Your task to perform on an android device: turn pop-ups off in chrome Image 0: 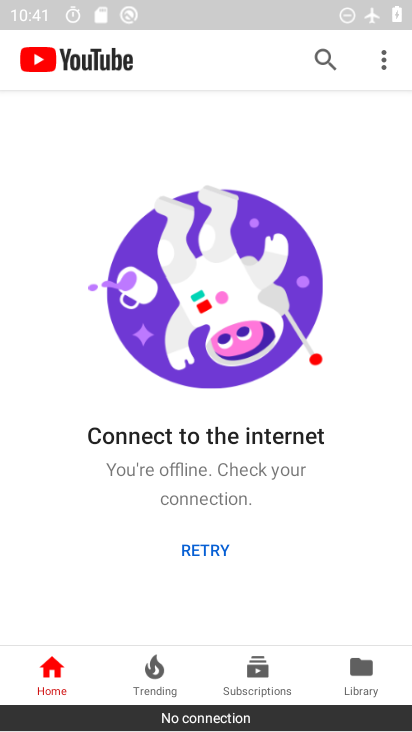
Step 0: press home button
Your task to perform on an android device: turn pop-ups off in chrome Image 1: 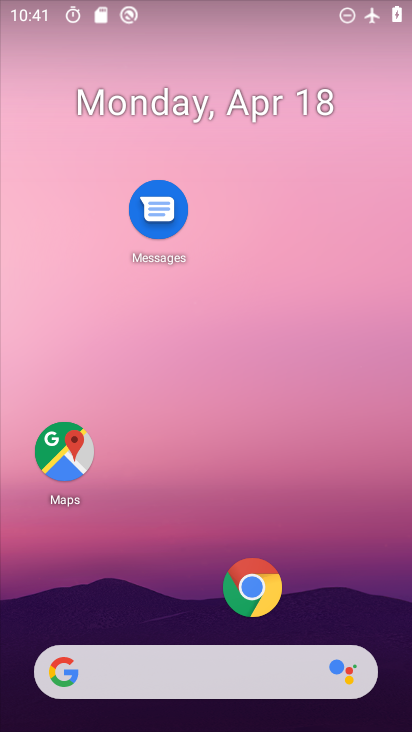
Step 1: click (261, 595)
Your task to perform on an android device: turn pop-ups off in chrome Image 2: 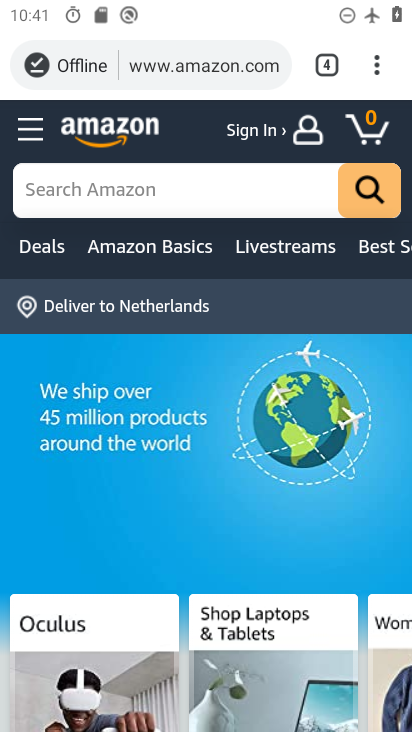
Step 2: click (374, 69)
Your task to perform on an android device: turn pop-ups off in chrome Image 3: 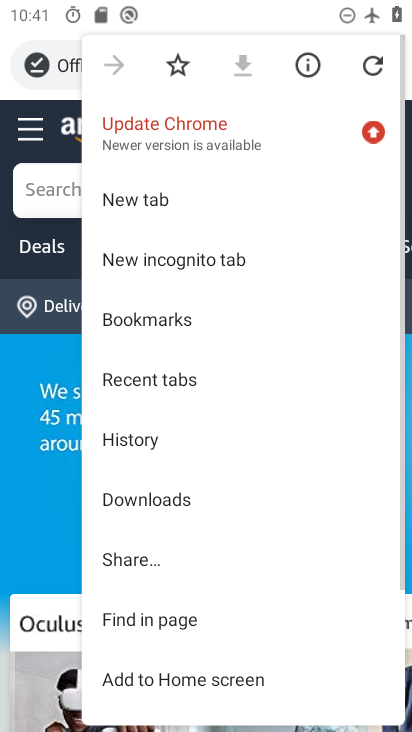
Step 3: drag from (186, 644) to (221, 302)
Your task to perform on an android device: turn pop-ups off in chrome Image 4: 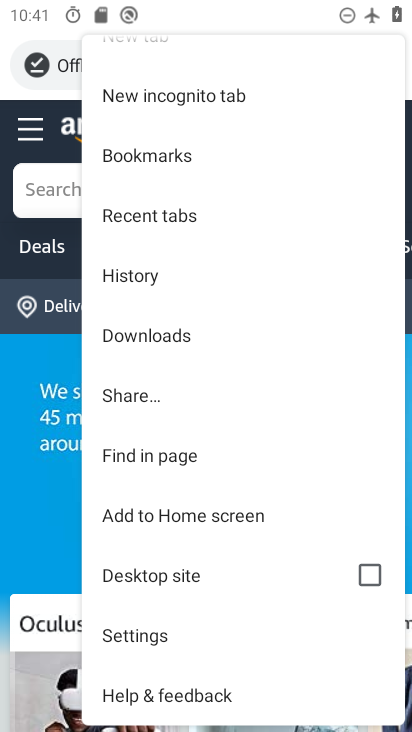
Step 4: click (137, 646)
Your task to perform on an android device: turn pop-ups off in chrome Image 5: 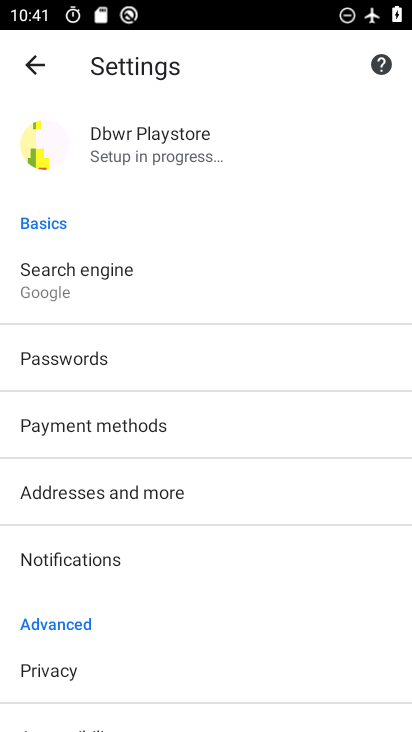
Step 5: drag from (105, 577) to (198, 186)
Your task to perform on an android device: turn pop-ups off in chrome Image 6: 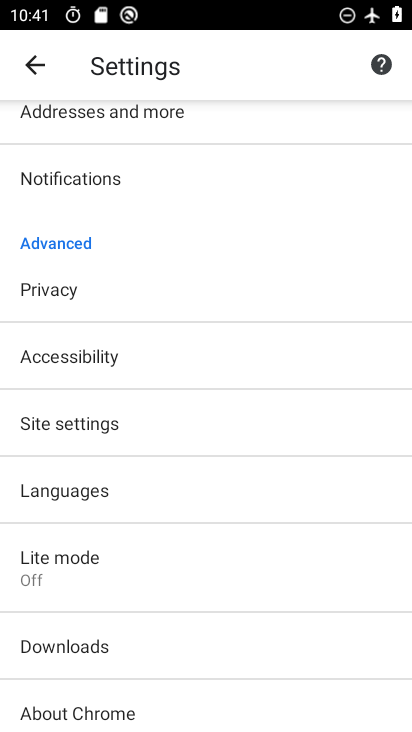
Step 6: click (104, 426)
Your task to perform on an android device: turn pop-ups off in chrome Image 7: 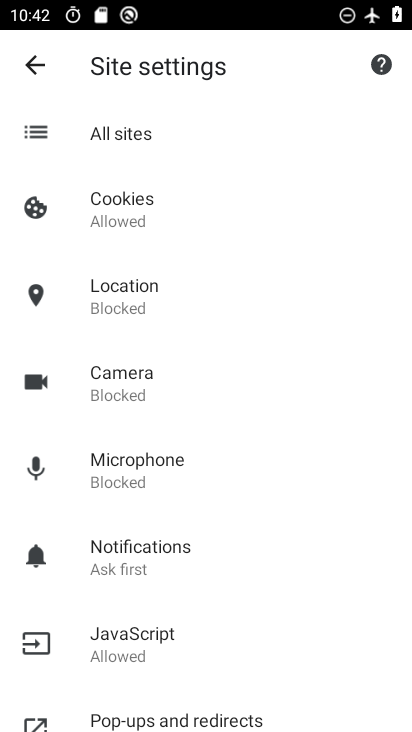
Step 7: drag from (161, 583) to (172, 287)
Your task to perform on an android device: turn pop-ups off in chrome Image 8: 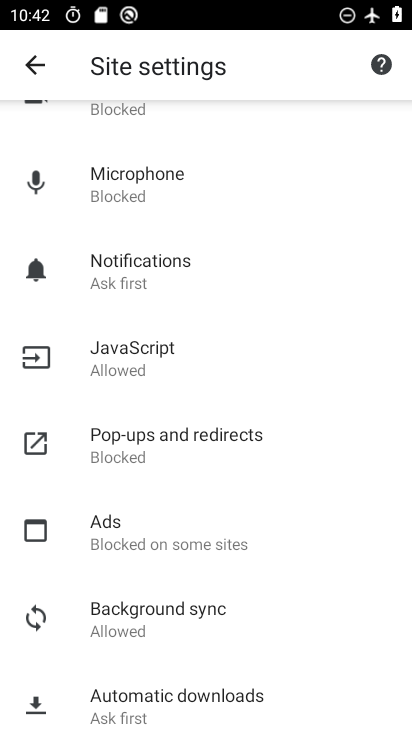
Step 8: click (129, 444)
Your task to perform on an android device: turn pop-ups off in chrome Image 9: 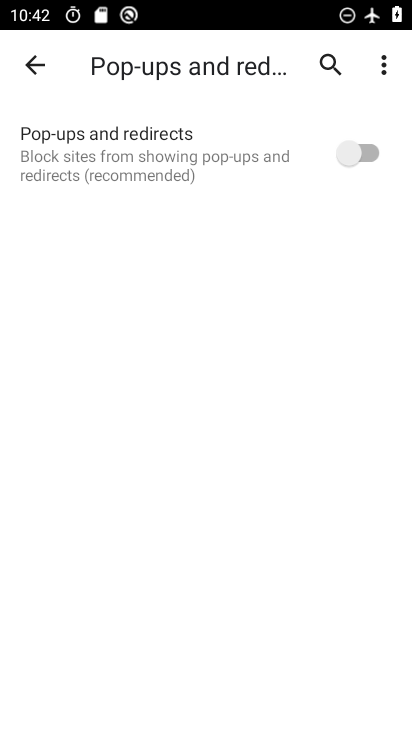
Step 9: click (372, 152)
Your task to perform on an android device: turn pop-ups off in chrome Image 10: 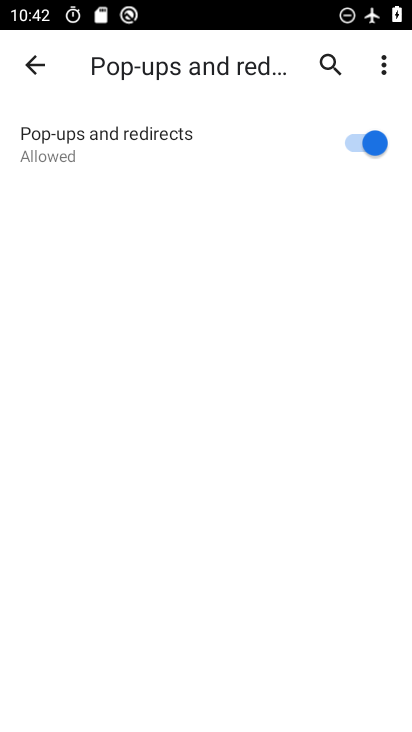
Step 10: task complete